Your task to perform on an android device: toggle translation in the chrome app Image 0: 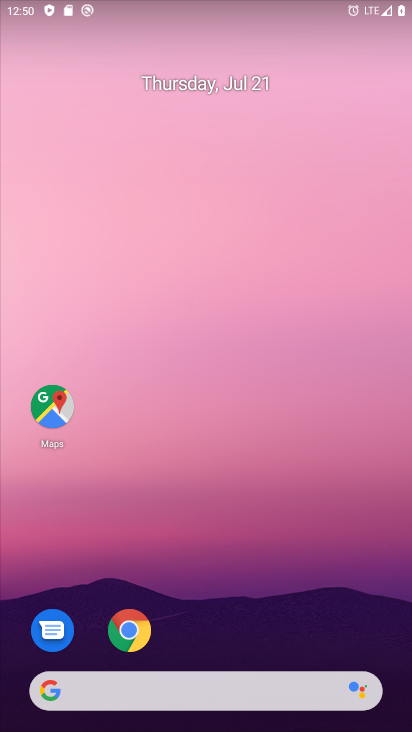
Step 0: click (121, 617)
Your task to perform on an android device: toggle translation in the chrome app Image 1: 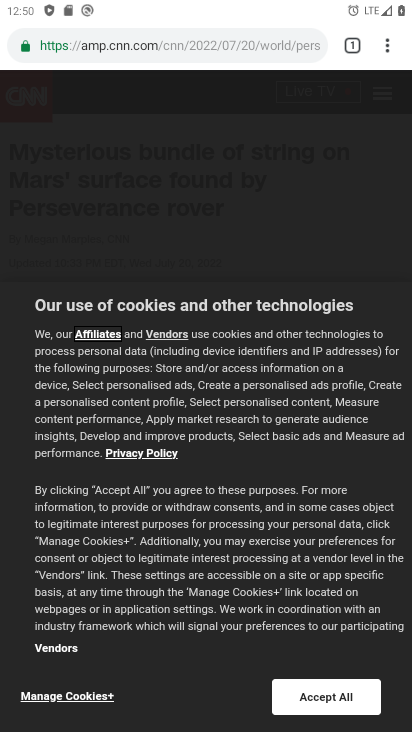
Step 1: click (392, 42)
Your task to perform on an android device: toggle translation in the chrome app Image 2: 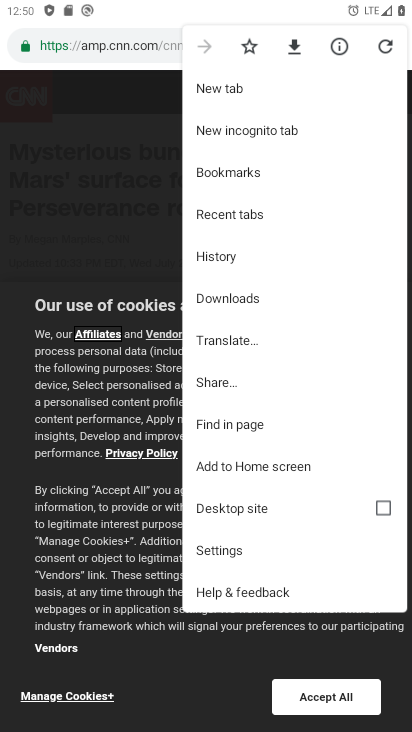
Step 2: click (211, 544)
Your task to perform on an android device: toggle translation in the chrome app Image 3: 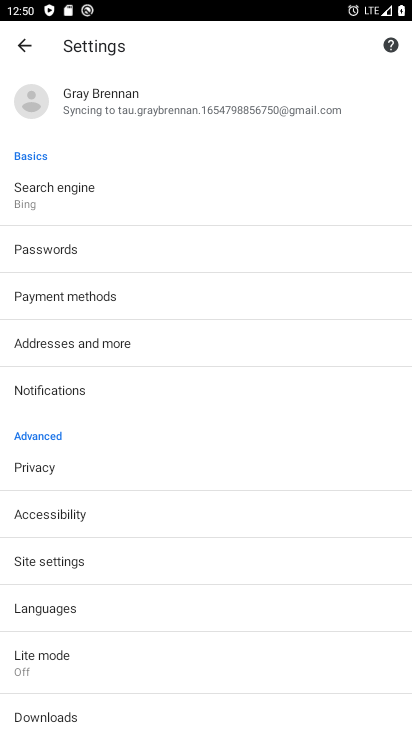
Step 3: click (90, 626)
Your task to perform on an android device: toggle translation in the chrome app Image 4: 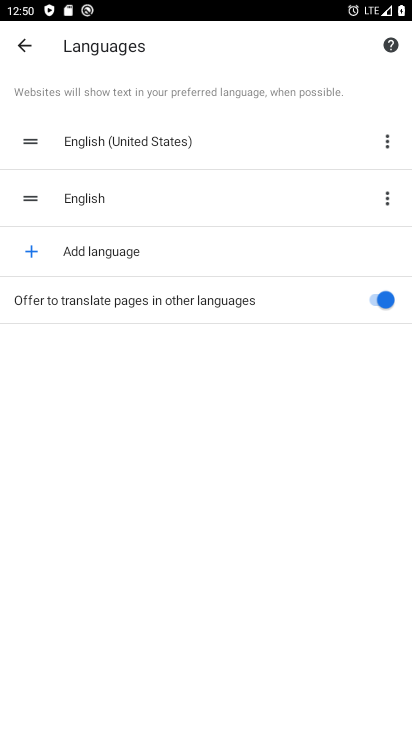
Step 4: click (382, 291)
Your task to perform on an android device: toggle translation in the chrome app Image 5: 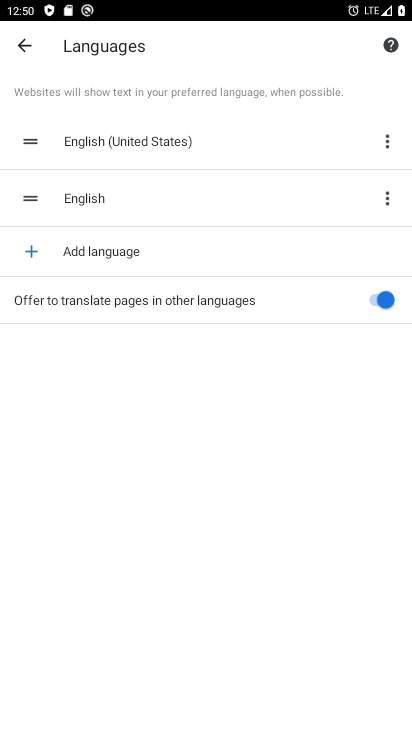
Step 5: click (382, 291)
Your task to perform on an android device: toggle translation in the chrome app Image 6: 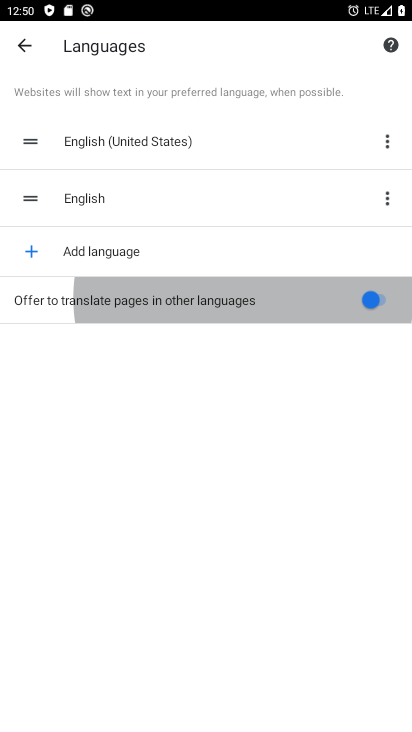
Step 6: click (382, 291)
Your task to perform on an android device: toggle translation in the chrome app Image 7: 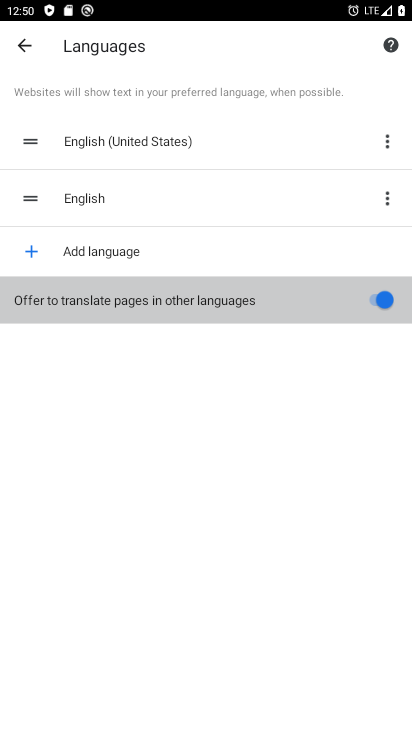
Step 7: click (382, 291)
Your task to perform on an android device: toggle translation in the chrome app Image 8: 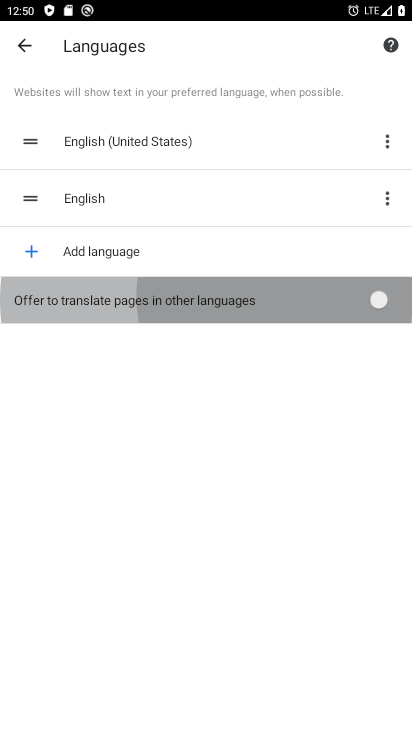
Step 8: click (382, 291)
Your task to perform on an android device: toggle translation in the chrome app Image 9: 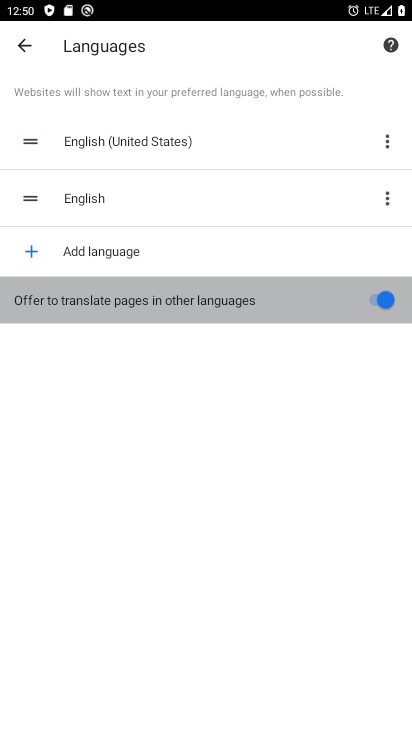
Step 9: click (382, 291)
Your task to perform on an android device: toggle translation in the chrome app Image 10: 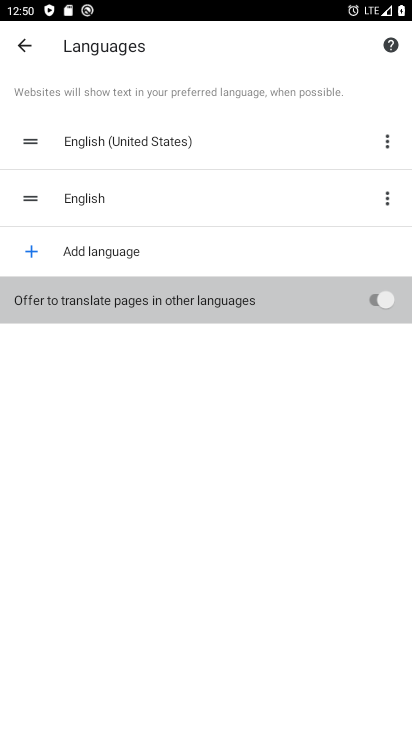
Step 10: click (382, 291)
Your task to perform on an android device: toggle translation in the chrome app Image 11: 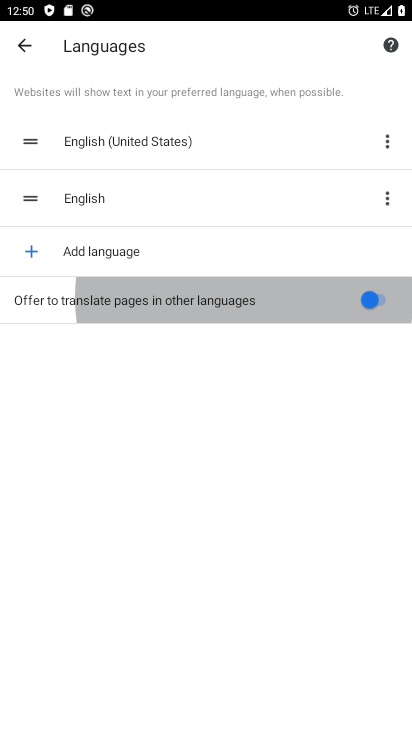
Step 11: click (382, 291)
Your task to perform on an android device: toggle translation in the chrome app Image 12: 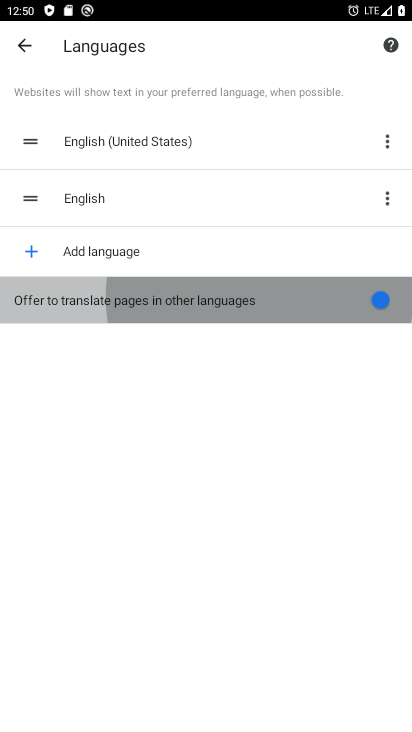
Step 12: click (382, 291)
Your task to perform on an android device: toggle translation in the chrome app Image 13: 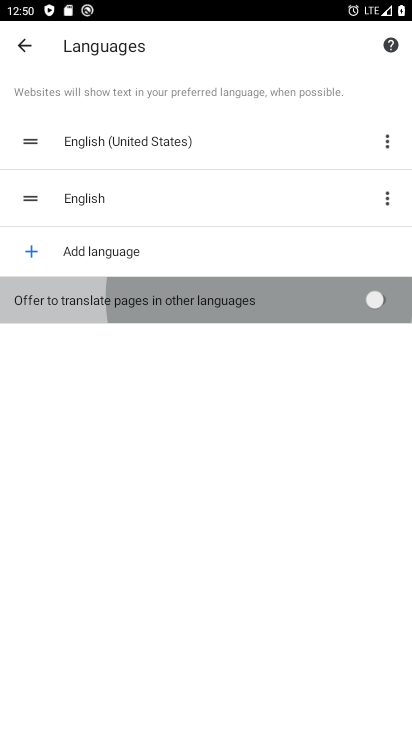
Step 13: click (382, 291)
Your task to perform on an android device: toggle translation in the chrome app Image 14: 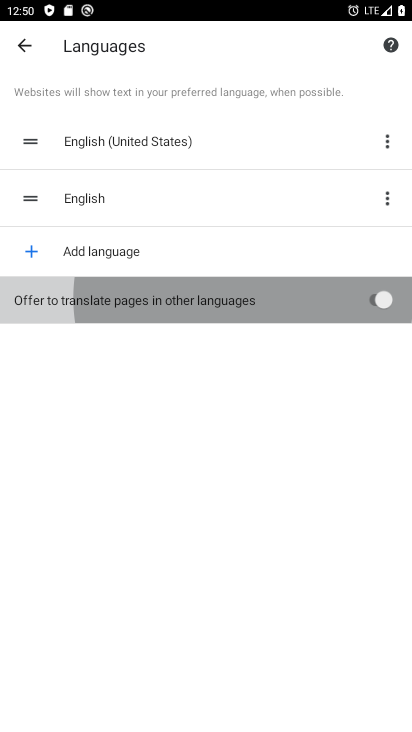
Step 14: click (382, 291)
Your task to perform on an android device: toggle translation in the chrome app Image 15: 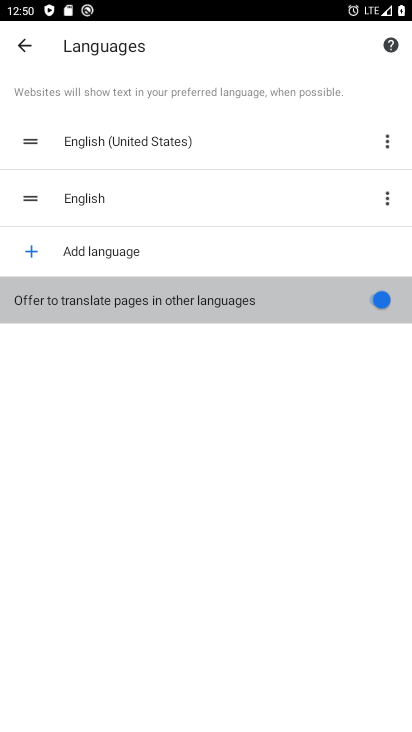
Step 15: click (382, 291)
Your task to perform on an android device: toggle translation in the chrome app Image 16: 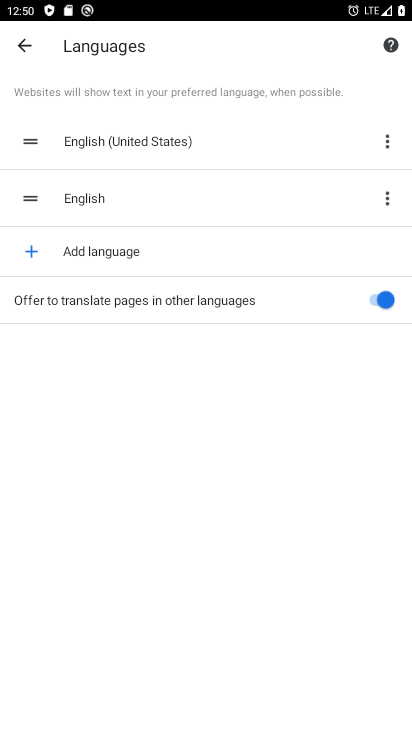
Step 16: task complete